Your task to perform on an android device: turn on translation in the chrome app Image 0: 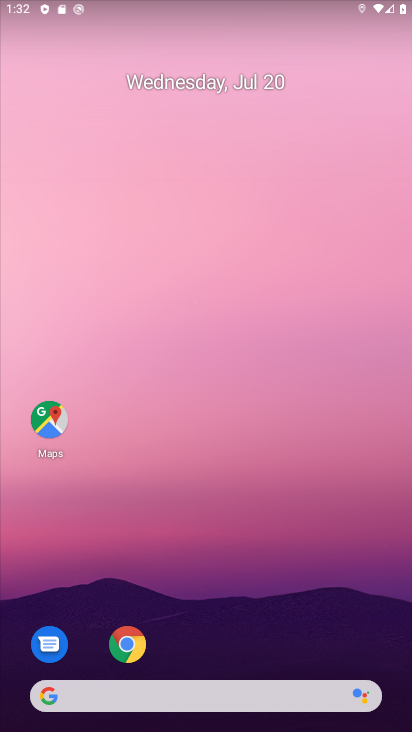
Step 0: click (123, 652)
Your task to perform on an android device: turn on translation in the chrome app Image 1: 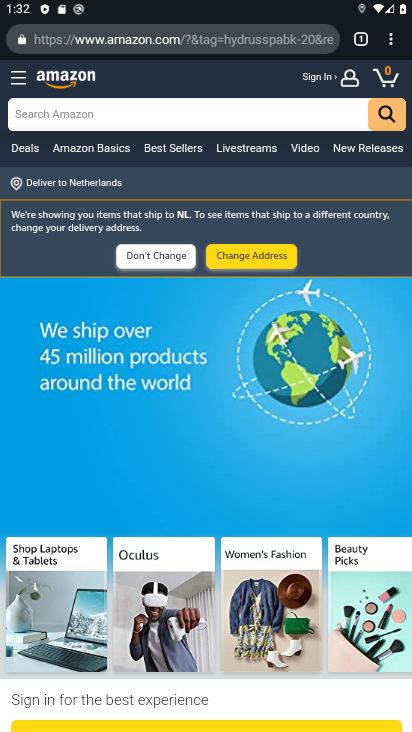
Step 1: click (389, 45)
Your task to perform on an android device: turn on translation in the chrome app Image 2: 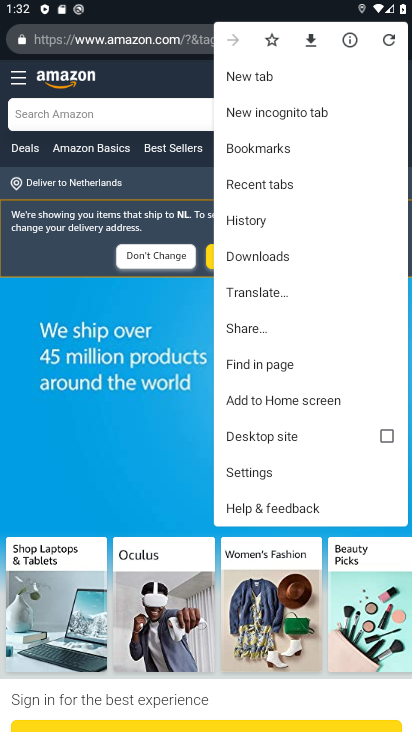
Step 2: click (246, 476)
Your task to perform on an android device: turn on translation in the chrome app Image 3: 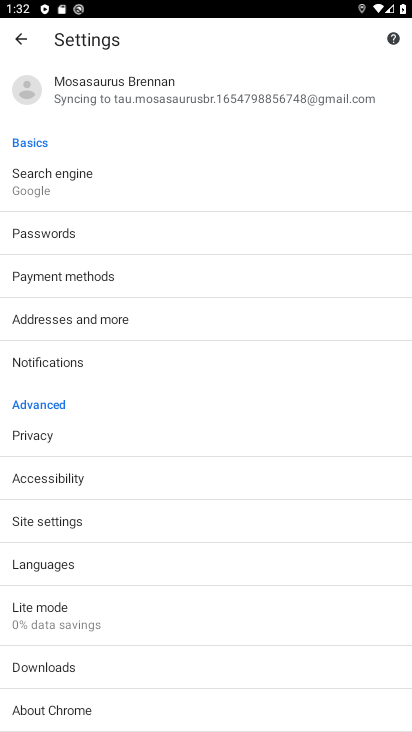
Step 3: click (76, 568)
Your task to perform on an android device: turn on translation in the chrome app Image 4: 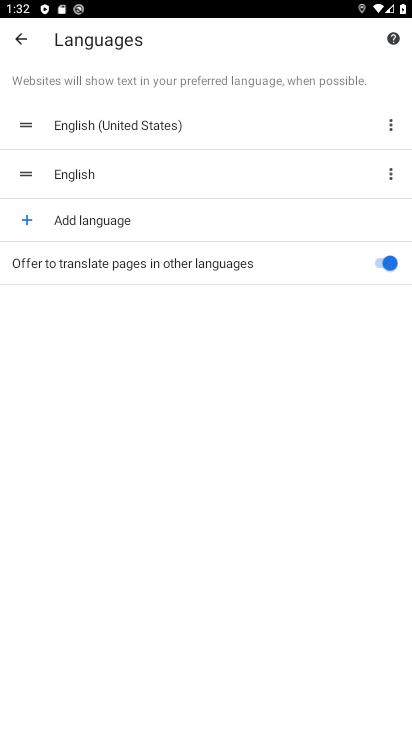
Step 4: task complete